Your task to perform on an android device: Open Google Chrome Image 0: 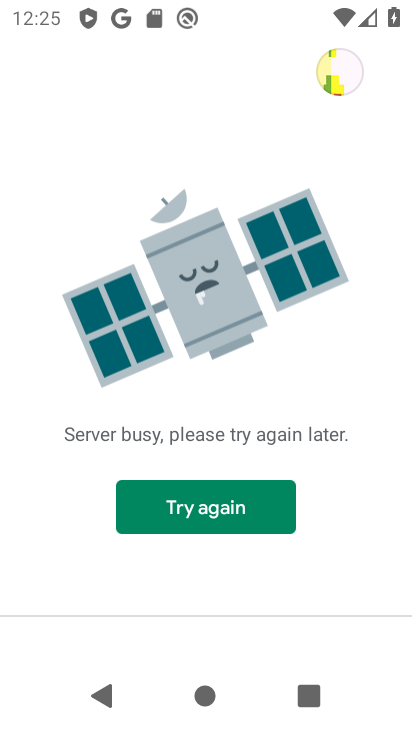
Step 0: press home button
Your task to perform on an android device: Open Google Chrome Image 1: 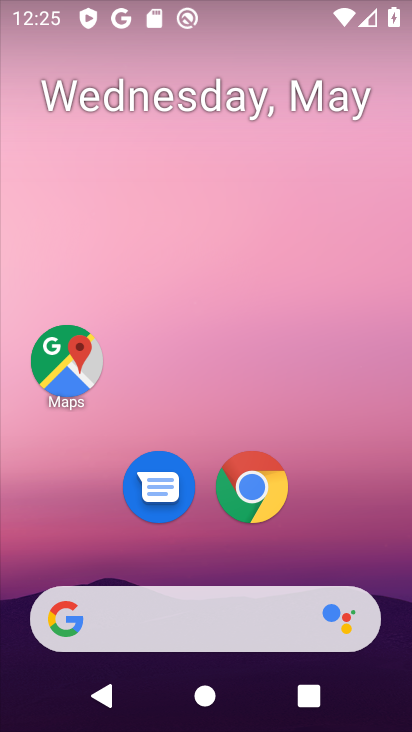
Step 1: click (232, 505)
Your task to perform on an android device: Open Google Chrome Image 2: 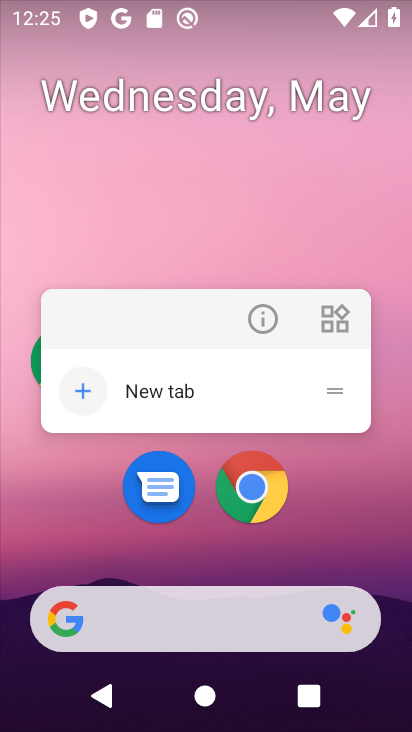
Step 2: click (247, 502)
Your task to perform on an android device: Open Google Chrome Image 3: 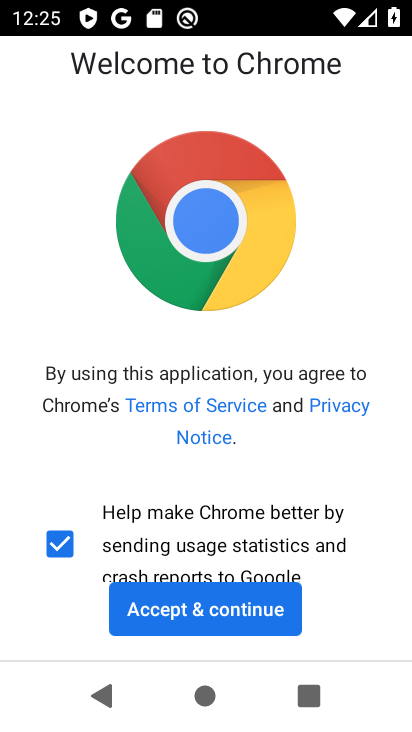
Step 3: click (226, 617)
Your task to perform on an android device: Open Google Chrome Image 4: 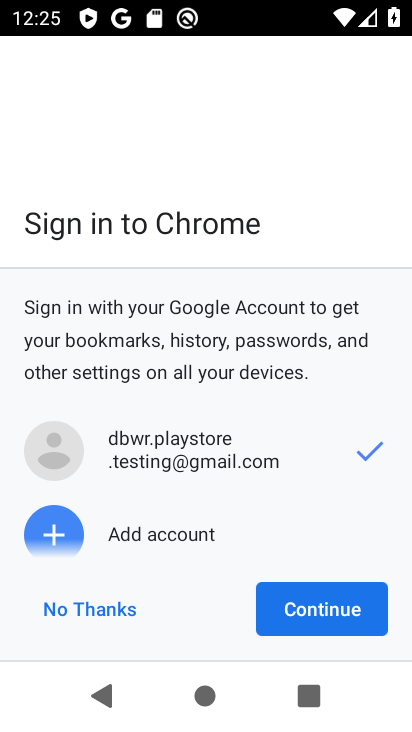
Step 4: click (342, 621)
Your task to perform on an android device: Open Google Chrome Image 5: 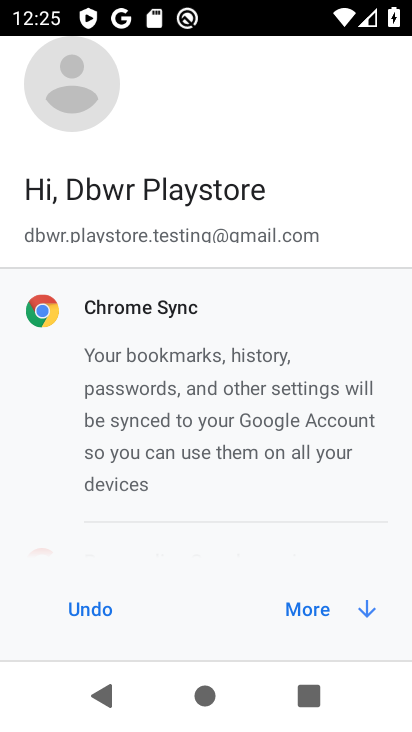
Step 5: click (316, 611)
Your task to perform on an android device: Open Google Chrome Image 6: 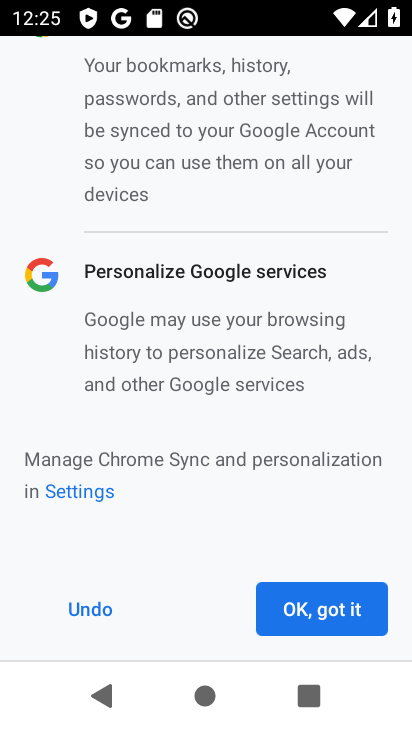
Step 6: click (310, 615)
Your task to perform on an android device: Open Google Chrome Image 7: 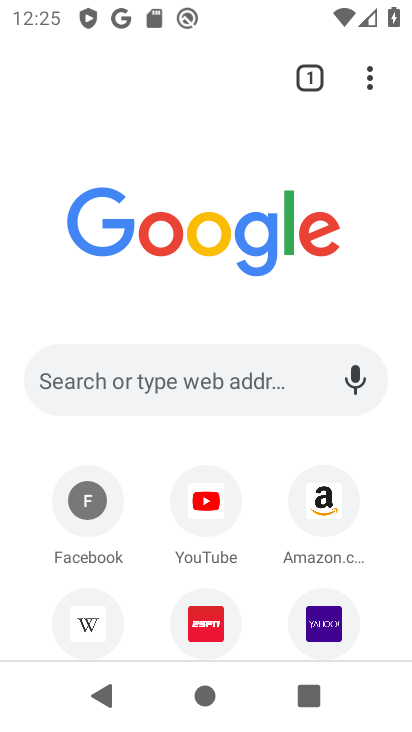
Step 7: task complete